Your task to perform on an android device: Search for pizza restaurants on Maps Image 0: 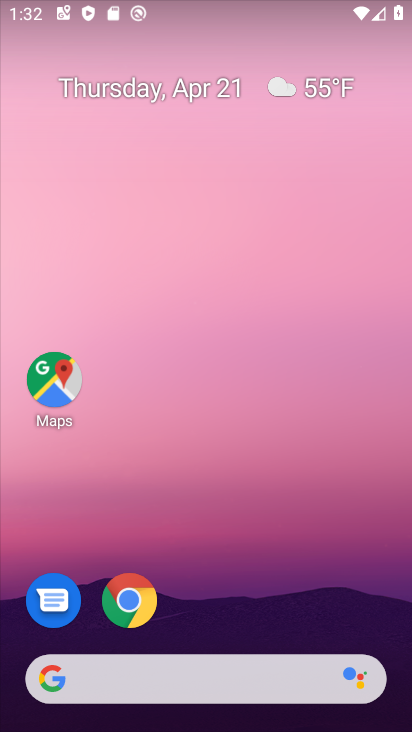
Step 0: click (65, 380)
Your task to perform on an android device: Search for pizza restaurants on Maps Image 1: 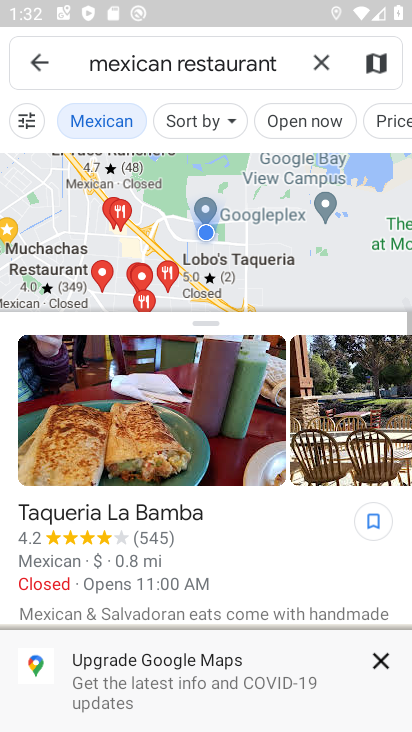
Step 1: click (328, 57)
Your task to perform on an android device: Search for pizza restaurants on Maps Image 2: 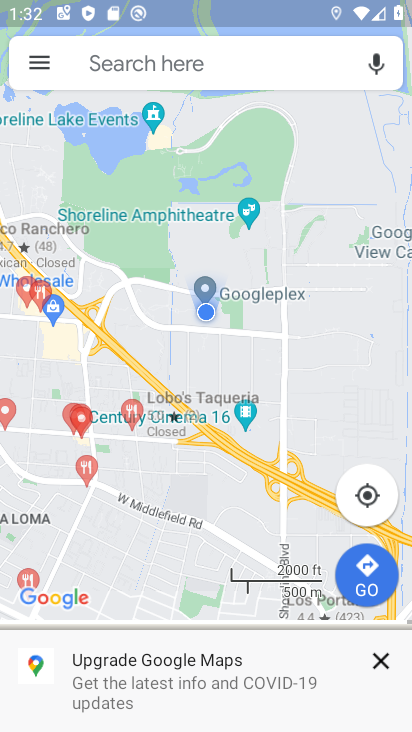
Step 2: click (226, 68)
Your task to perform on an android device: Search for pizza restaurants on Maps Image 3: 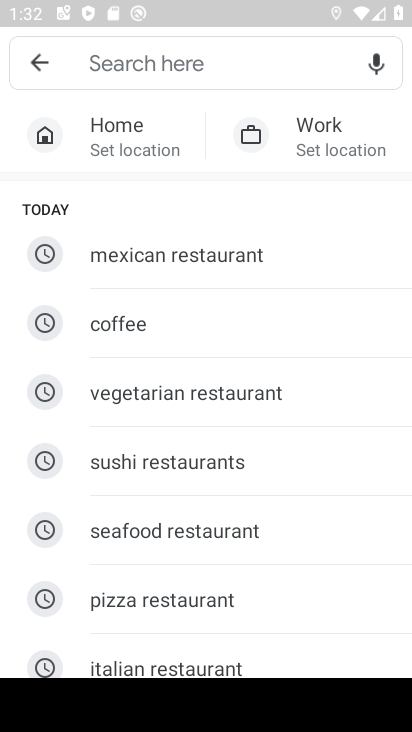
Step 3: type "pizza restaurants"
Your task to perform on an android device: Search for pizza restaurants on Maps Image 4: 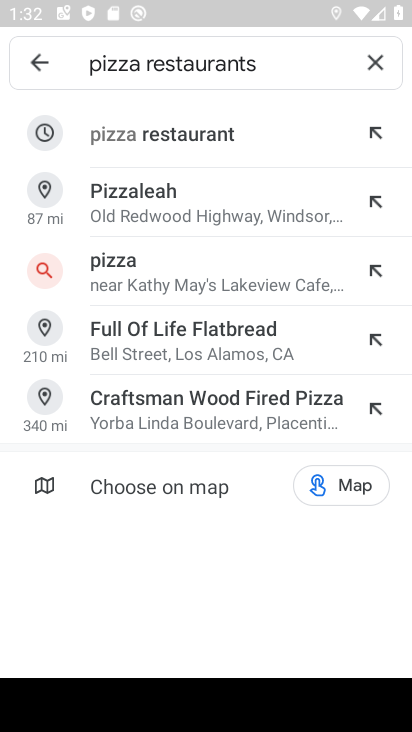
Step 4: click (200, 137)
Your task to perform on an android device: Search for pizza restaurants on Maps Image 5: 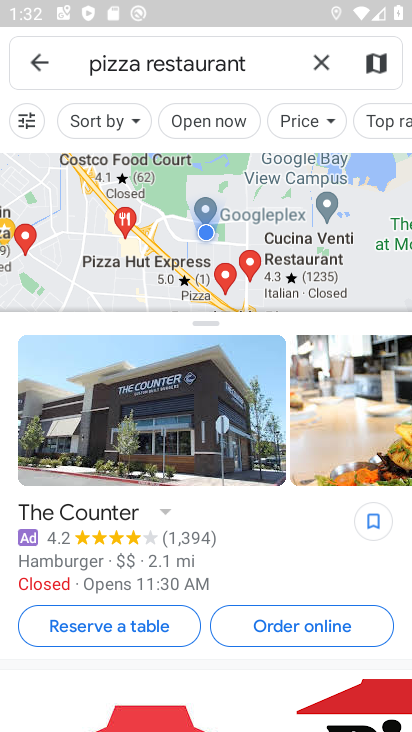
Step 5: task complete